Your task to perform on an android device: turn off improve location accuracy Image 0: 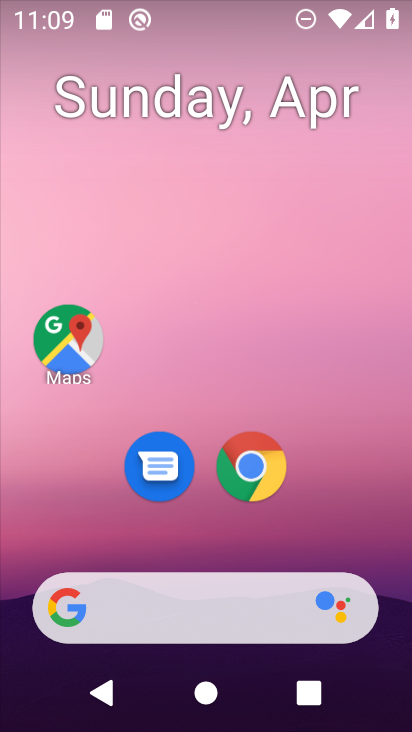
Step 0: drag from (385, 520) to (386, 87)
Your task to perform on an android device: turn off improve location accuracy Image 1: 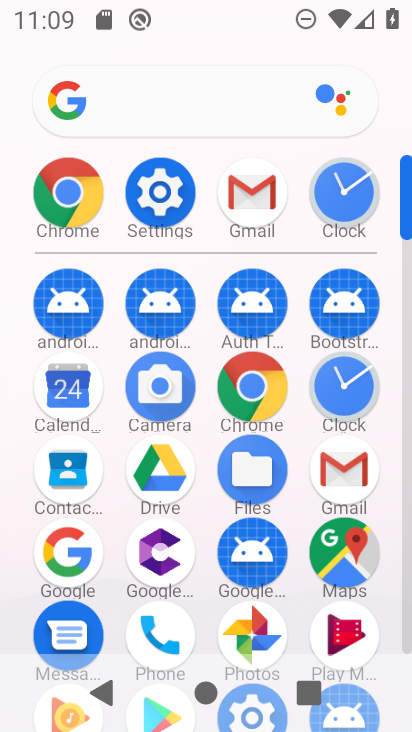
Step 1: click (169, 189)
Your task to perform on an android device: turn off improve location accuracy Image 2: 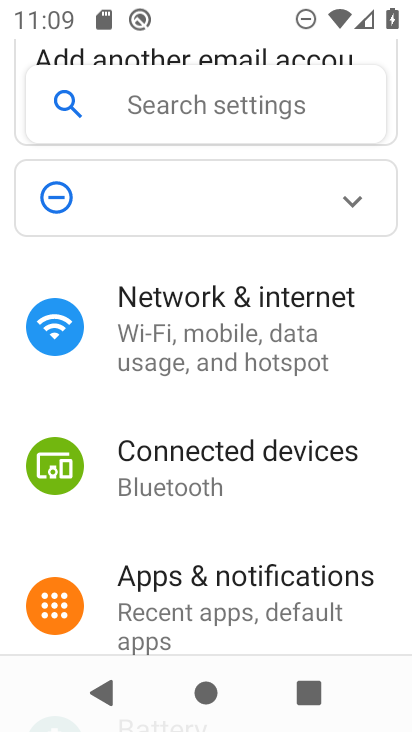
Step 2: drag from (365, 611) to (374, 458)
Your task to perform on an android device: turn off improve location accuracy Image 3: 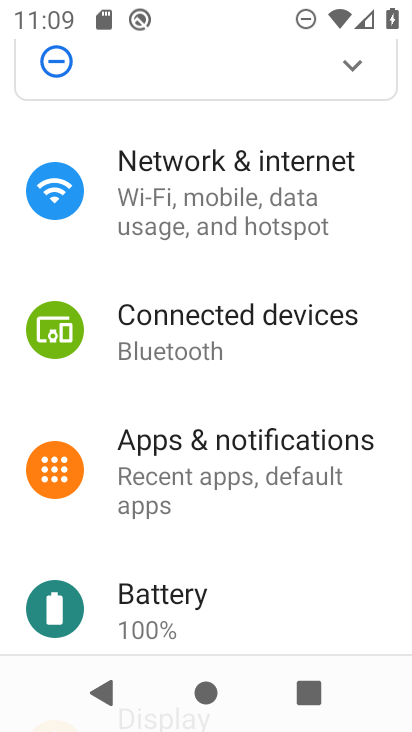
Step 3: drag from (364, 605) to (360, 460)
Your task to perform on an android device: turn off improve location accuracy Image 4: 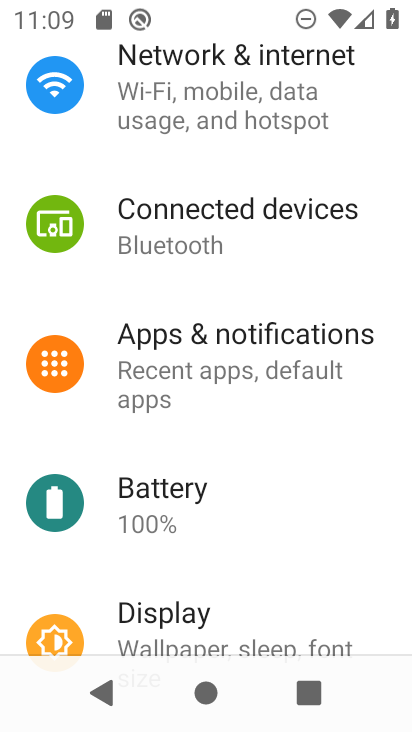
Step 4: drag from (349, 527) to (352, 402)
Your task to perform on an android device: turn off improve location accuracy Image 5: 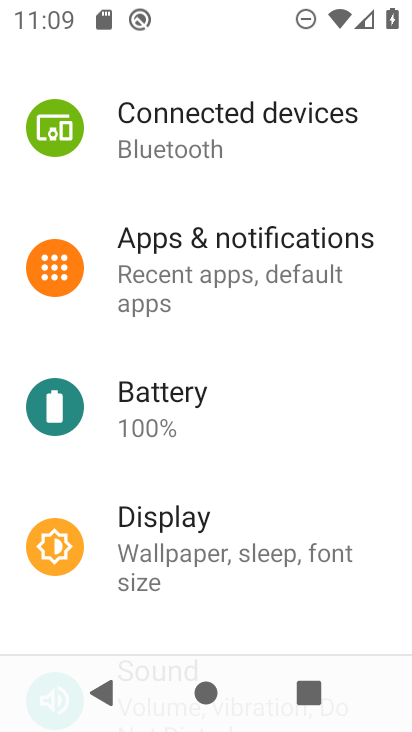
Step 5: drag from (356, 485) to (353, 342)
Your task to perform on an android device: turn off improve location accuracy Image 6: 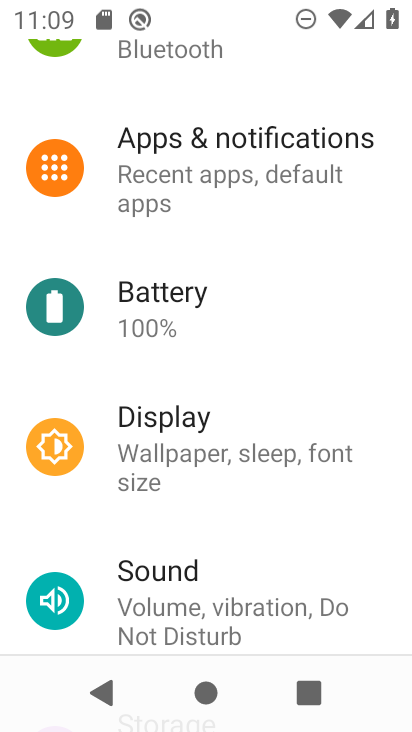
Step 6: drag from (320, 526) to (333, 363)
Your task to perform on an android device: turn off improve location accuracy Image 7: 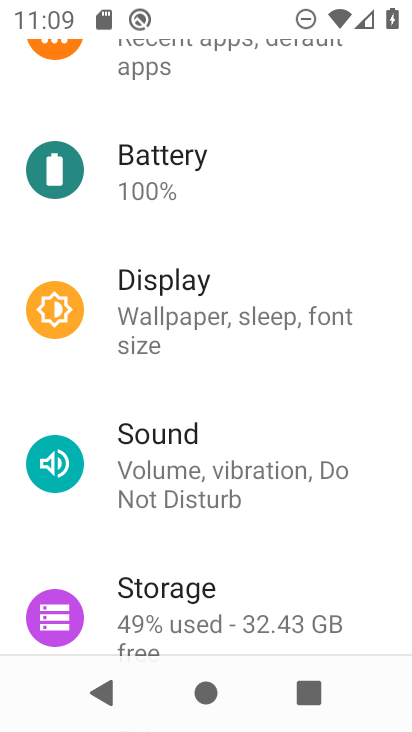
Step 7: drag from (320, 552) to (322, 260)
Your task to perform on an android device: turn off improve location accuracy Image 8: 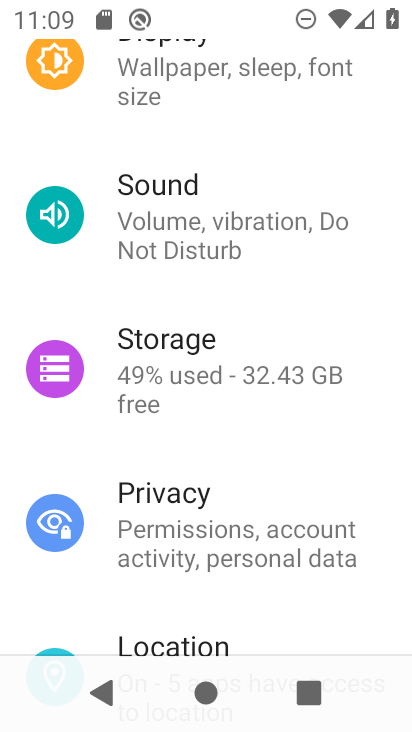
Step 8: drag from (363, 603) to (384, 359)
Your task to perform on an android device: turn off improve location accuracy Image 9: 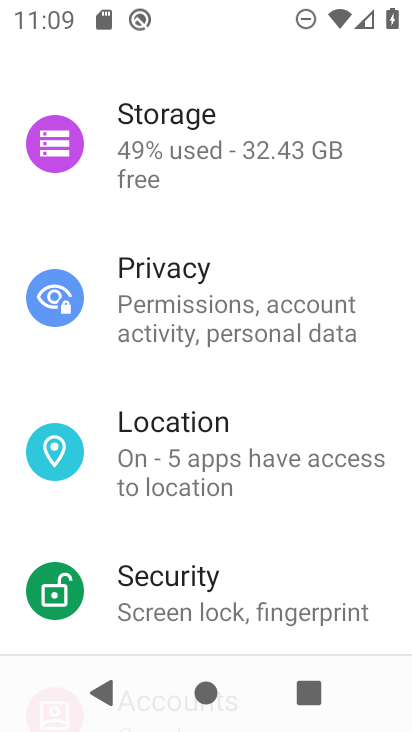
Step 9: click (256, 464)
Your task to perform on an android device: turn off improve location accuracy Image 10: 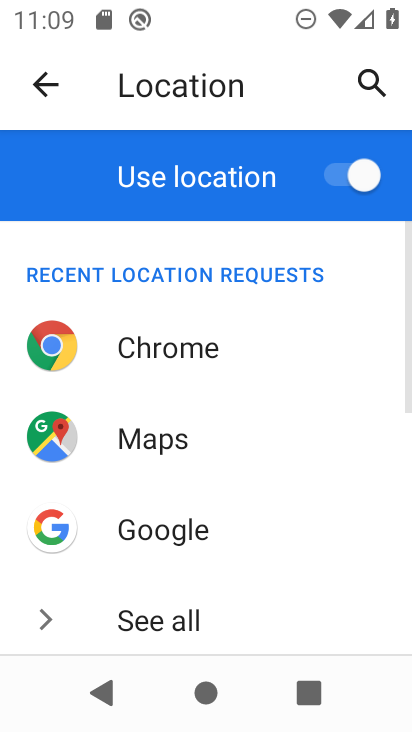
Step 10: drag from (294, 548) to (302, 273)
Your task to perform on an android device: turn off improve location accuracy Image 11: 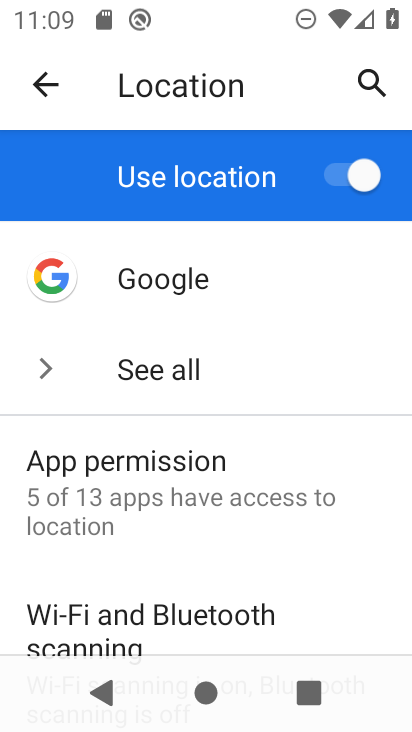
Step 11: drag from (324, 588) to (328, 252)
Your task to perform on an android device: turn off improve location accuracy Image 12: 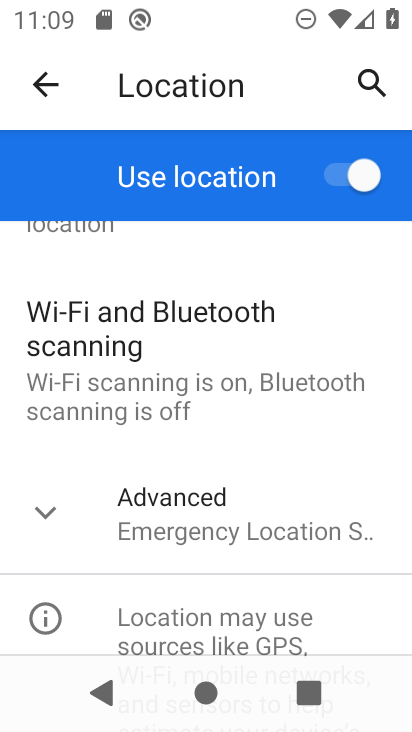
Step 12: click (295, 543)
Your task to perform on an android device: turn off improve location accuracy Image 13: 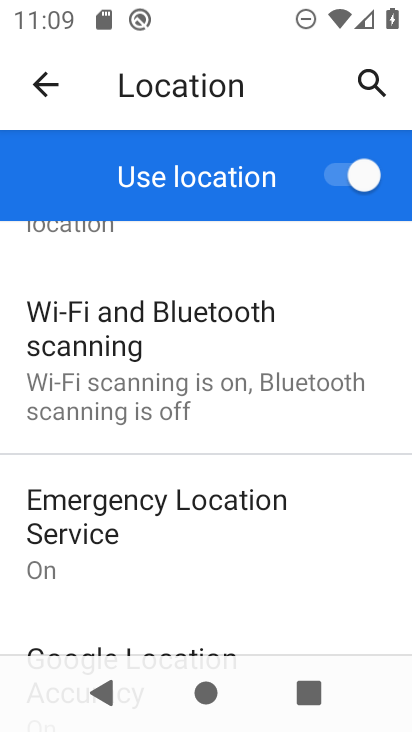
Step 13: drag from (356, 594) to (350, 395)
Your task to perform on an android device: turn off improve location accuracy Image 14: 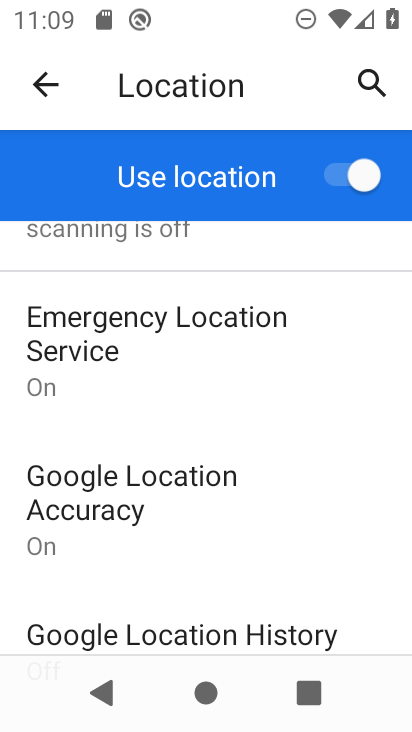
Step 14: click (174, 501)
Your task to perform on an android device: turn off improve location accuracy Image 15: 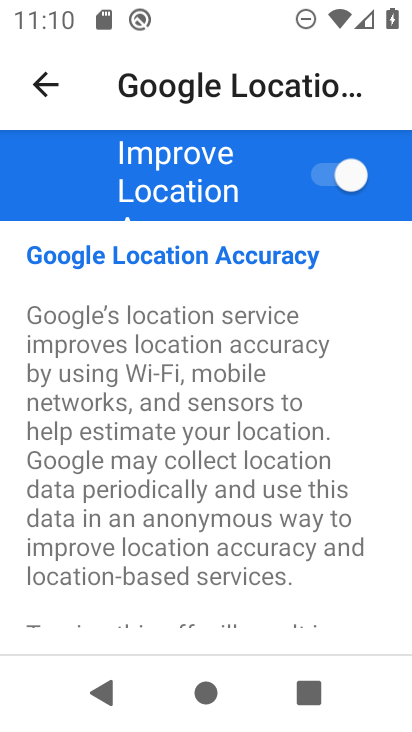
Step 15: click (350, 172)
Your task to perform on an android device: turn off improve location accuracy Image 16: 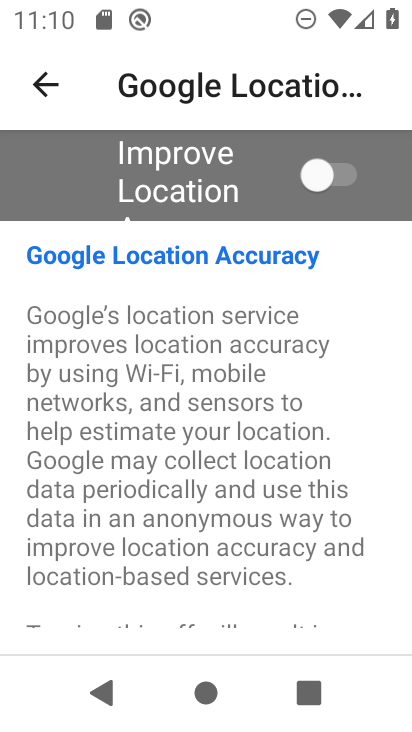
Step 16: task complete